Your task to perform on an android device: Go to accessibility settings Image 0: 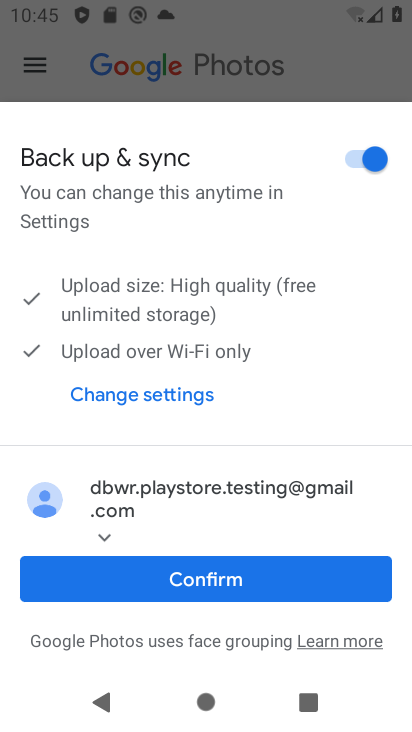
Step 0: press home button
Your task to perform on an android device: Go to accessibility settings Image 1: 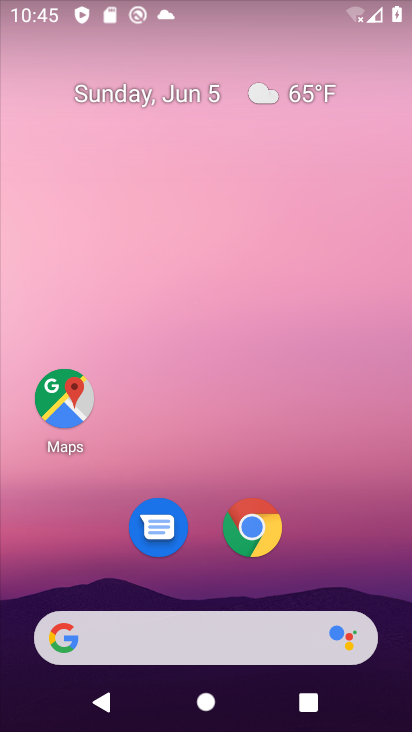
Step 1: drag from (308, 564) to (310, 26)
Your task to perform on an android device: Go to accessibility settings Image 2: 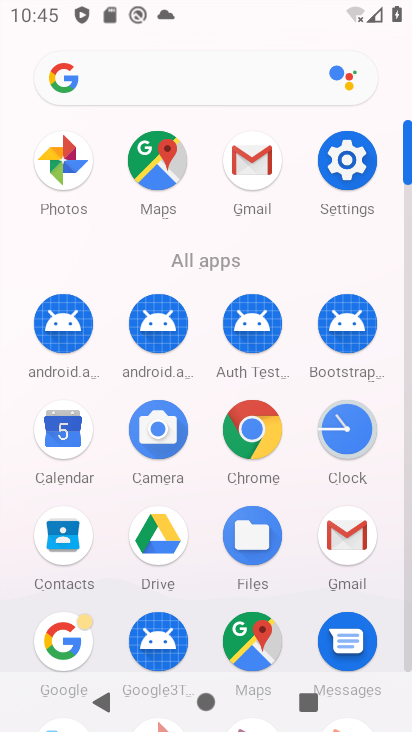
Step 2: click (354, 162)
Your task to perform on an android device: Go to accessibility settings Image 3: 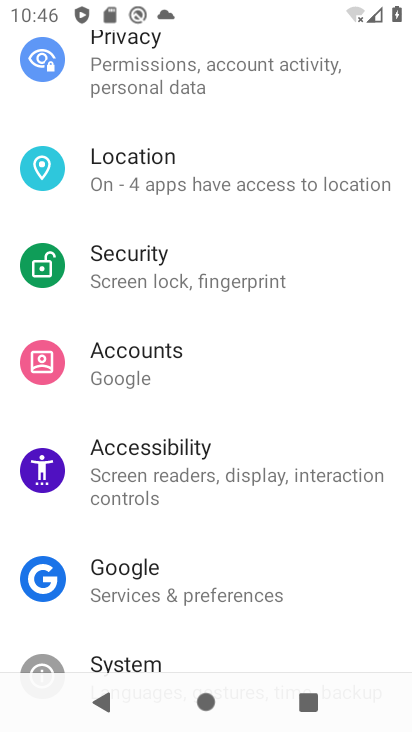
Step 3: click (214, 448)
Your task to perform on an android device: Go to accessibility settings Image 4: 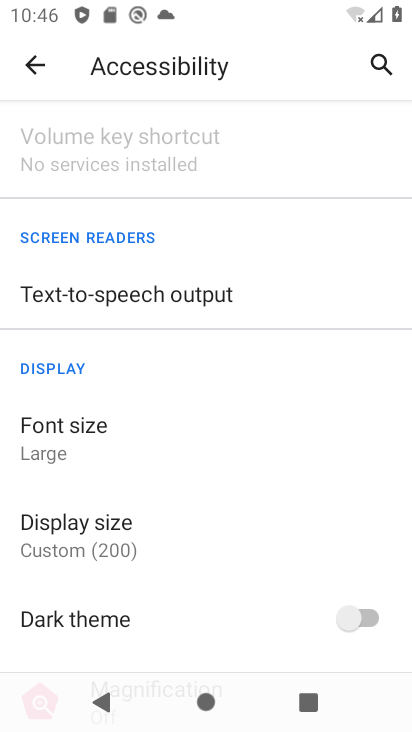
Step 4: task complete